Your task to perform on an android device: change the clock style Image 0: 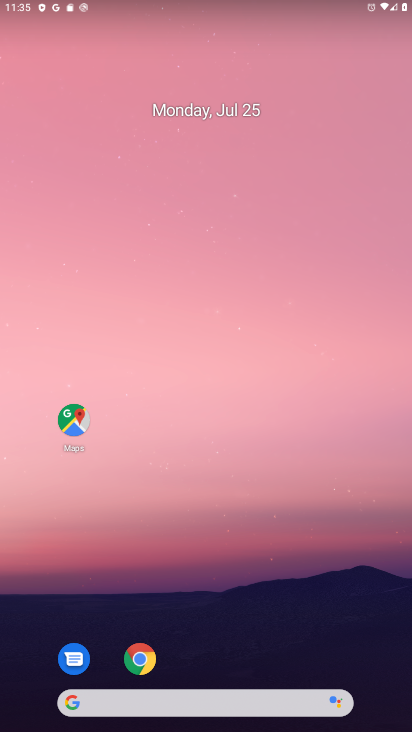
Step 0: drag from (267, 582) to (182, 45)
Your task to perform on an android device: change the clock style Image 1: 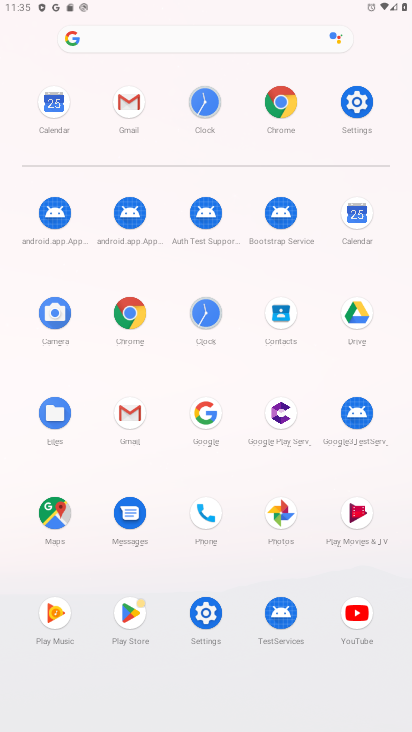
Step 1: click (205, 101)
Your task to perform on an android device: change the clock style Image 2: 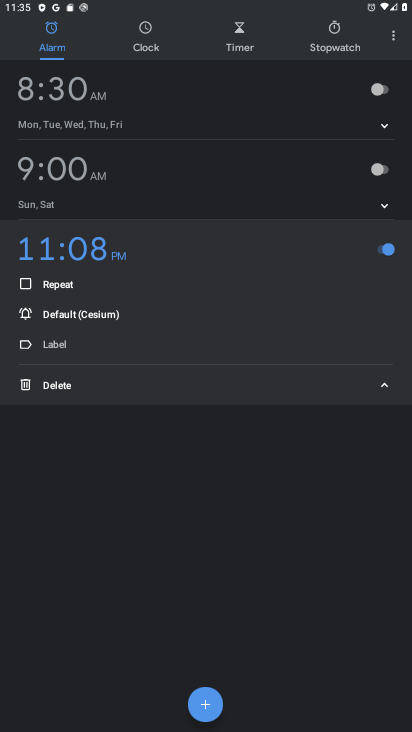
Step 2: click (391, 26)
Your task to perform on an android device: change the clock style Image 3: 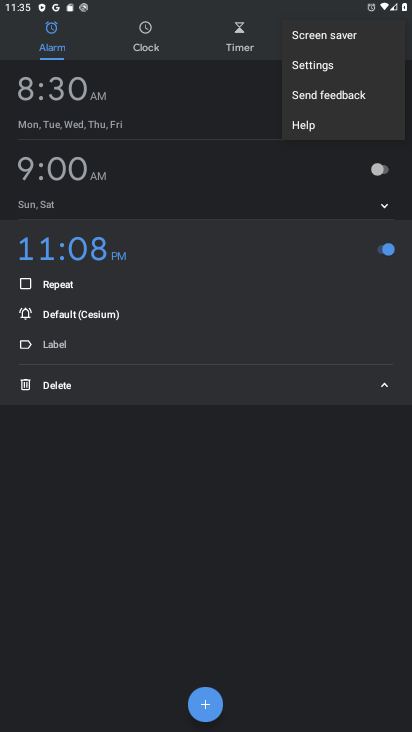
Step 3: click (304, 63)
Your task to perform on an android device: change the clock style Image 4: 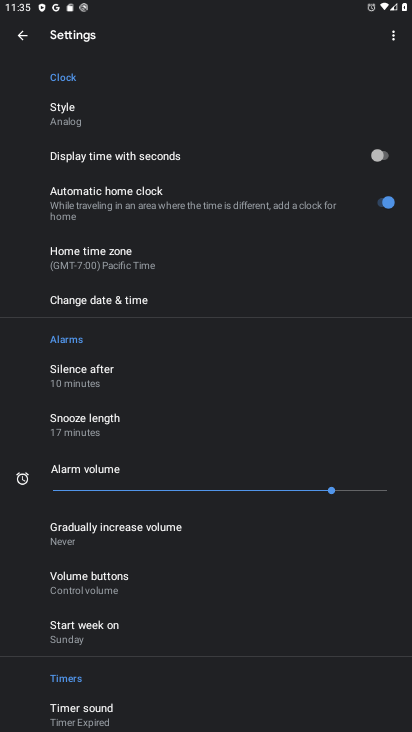
Step 4: click (63, 119)
Your task to perform on an android device: change the clock style Image 5: 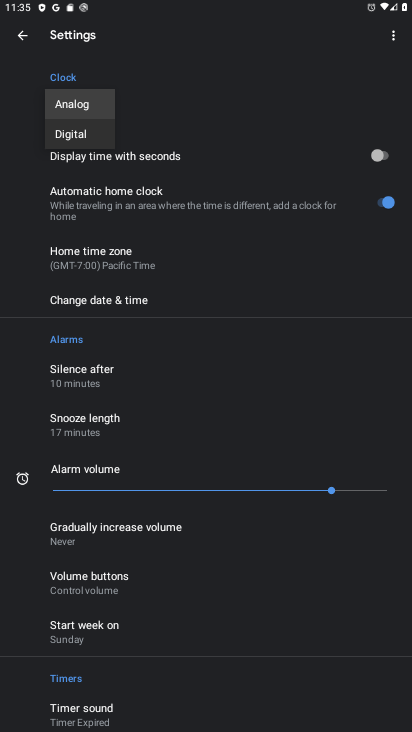
Step 5: click (72, 134)
Your task to perform on an android device: change the clock style Image 6: 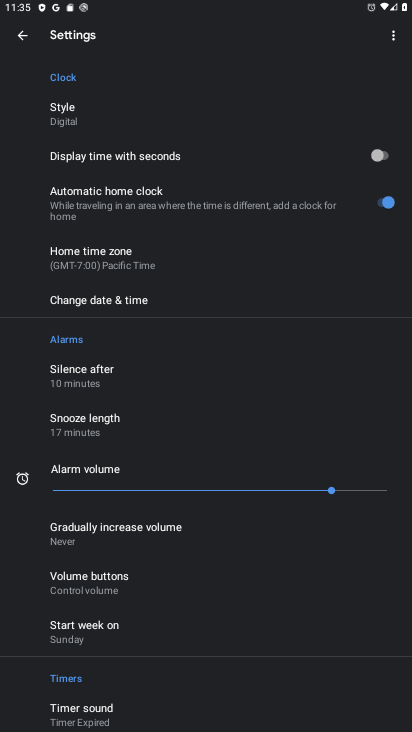
Step 6: task complete